Your task to perform on an android device: Go to CNN.com Image 0: 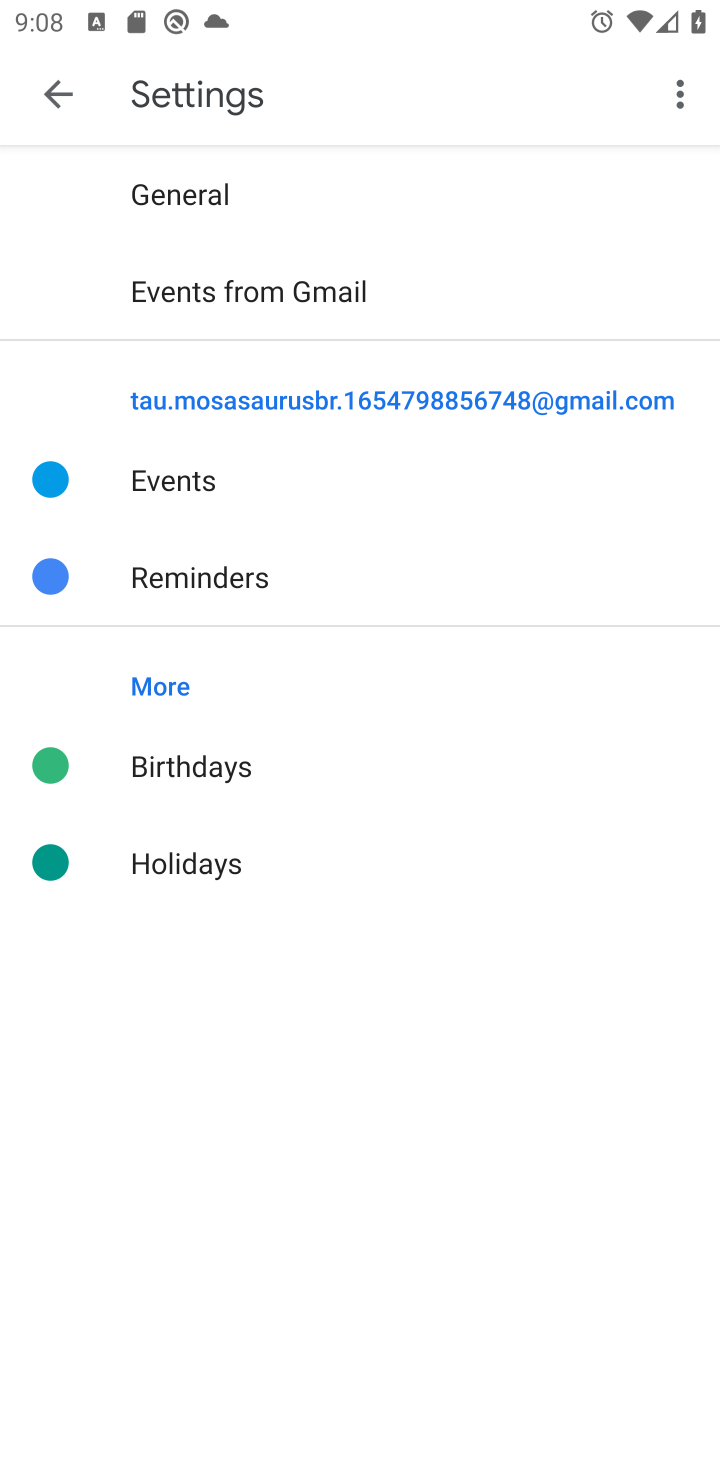
Step 0: press home button
Your task to perform on an android device: Go to CNN.com Image 1: 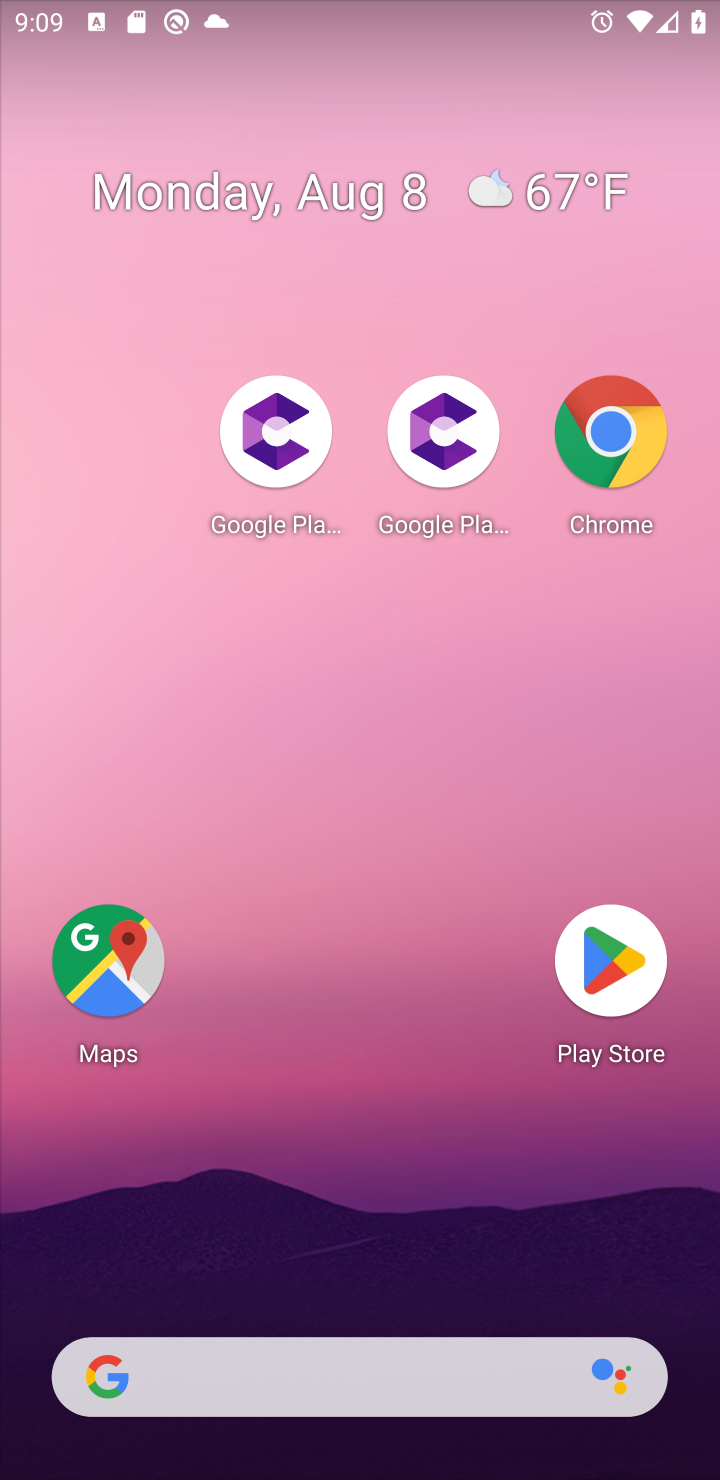
Step 1: click (303, 1368)
Your task to perform on an android device: Go to CNN.com Image 2: 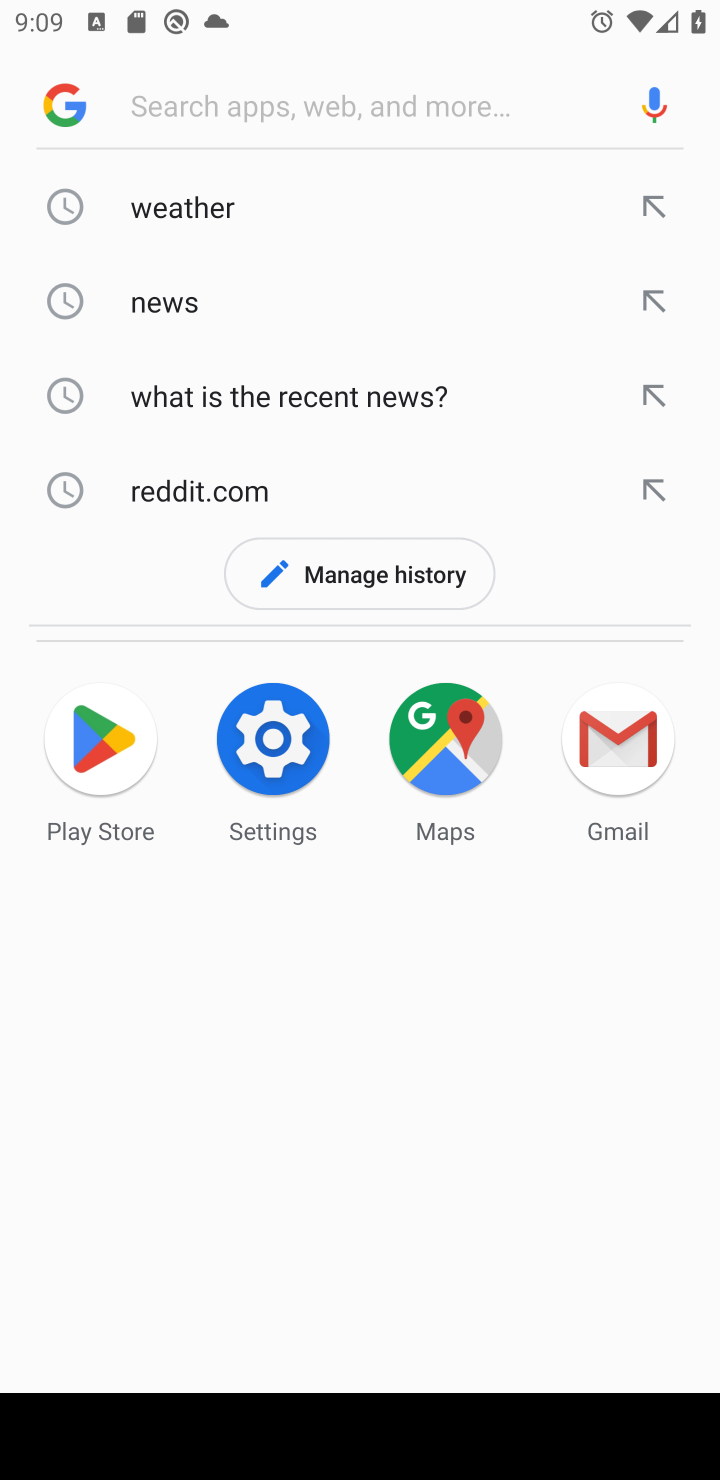
Step 2: type "cnn"
Your task to perform on an android device: Go to CNN.com Image 3: 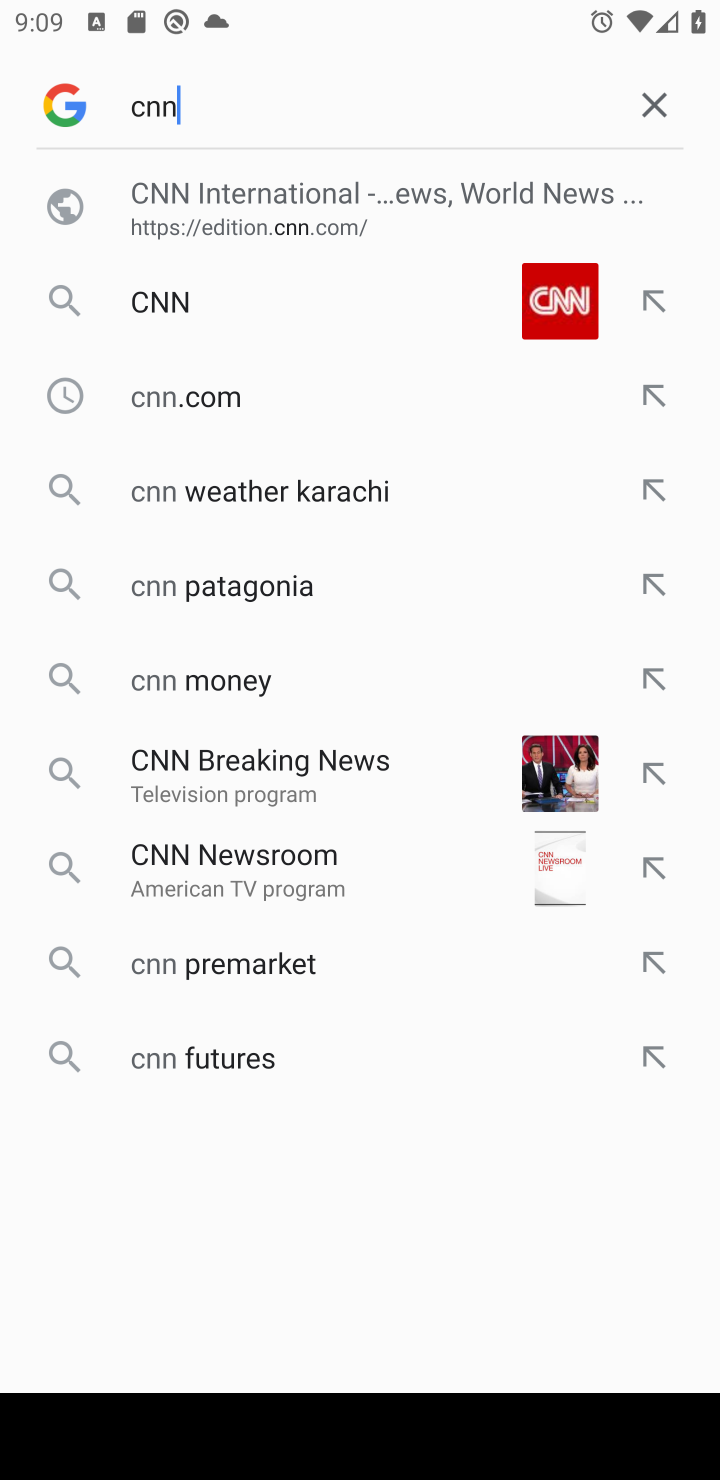
Step 3: click (325, 225)
Your task to perform on an android device: Go to CNN.com Image 4: 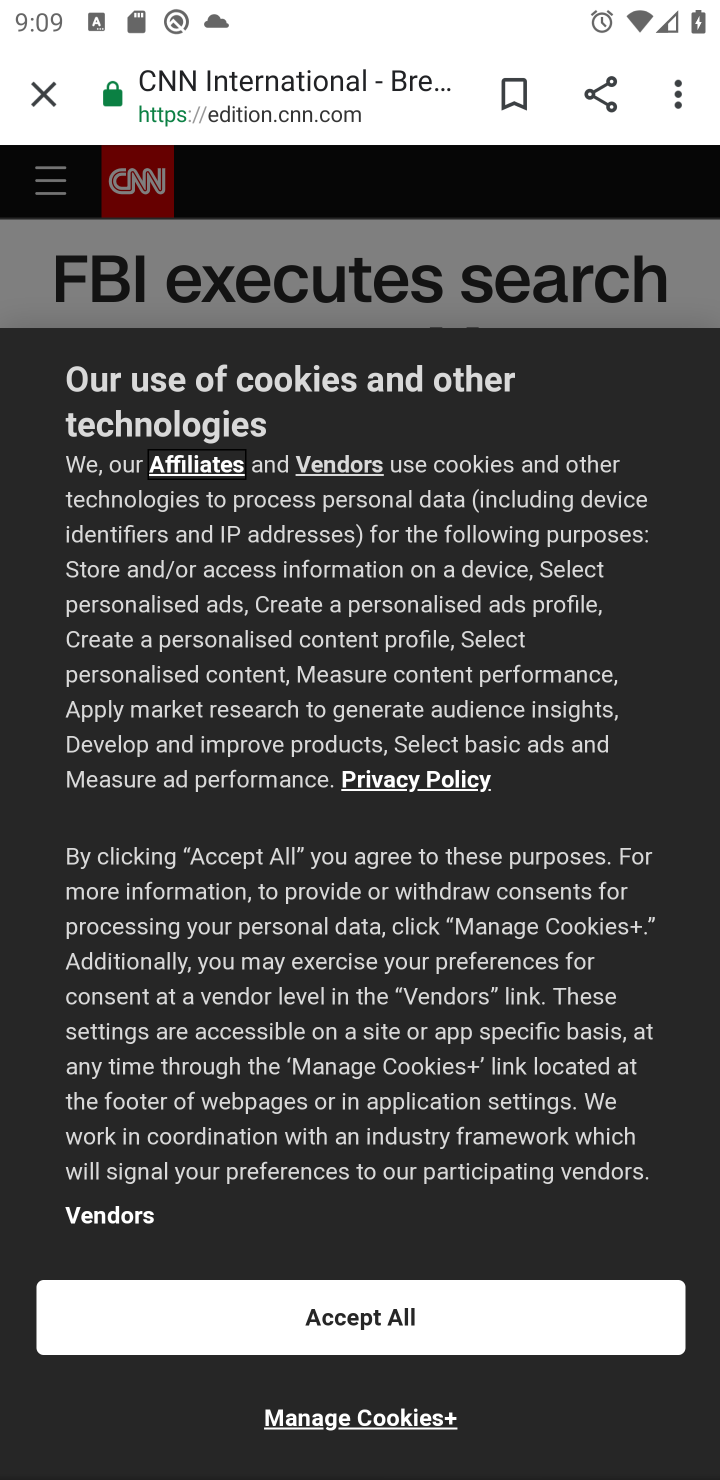
Step 4: task complete